Your task to perform on an android device: Open internet settings Image 0: 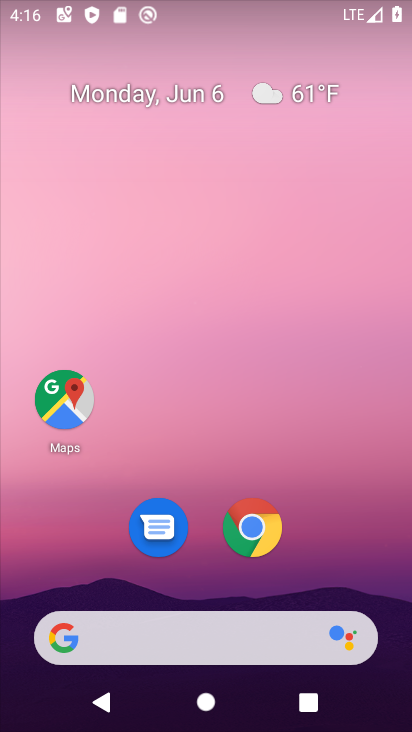
Step 0: click (351, 582)
Your task to perform on an android device: Open internet settings Image 1: 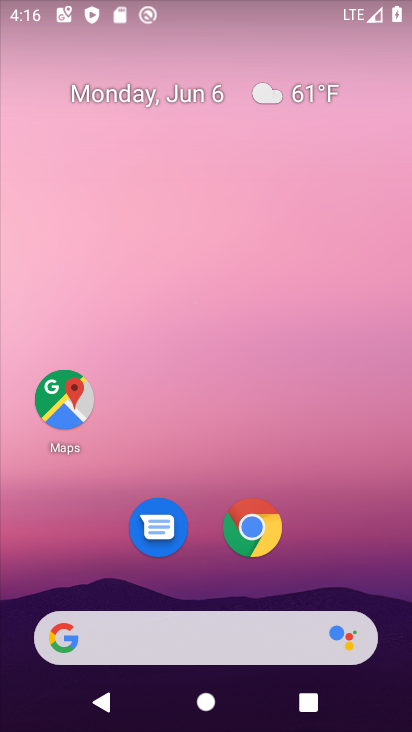
Step 1: drag from (335, 505) to (253, 18)
Your task to perform on an android device: Open internet settings Image 2: 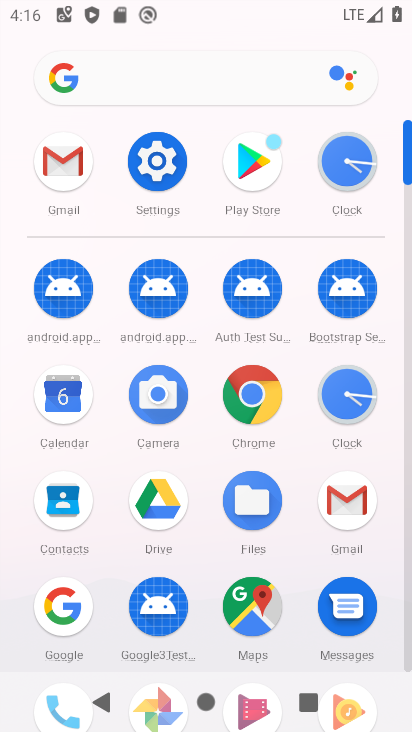
Step 2: click (159, 173)
Your task to perform on an android device: Open internet settings Image 3: 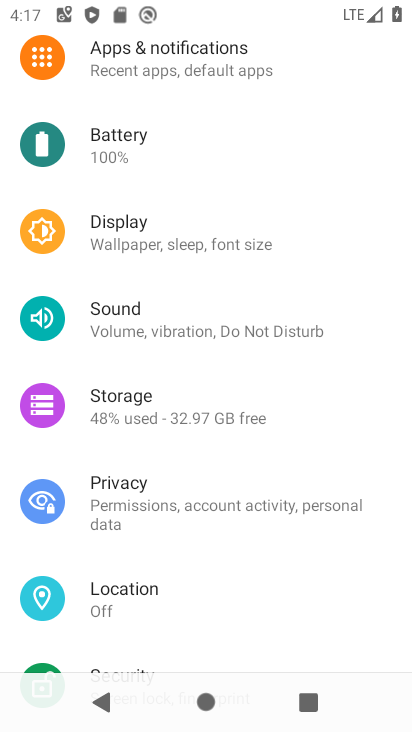
Step 3: click (273, 478)
Your task to perform on an android device: Open internet settings Image 4: 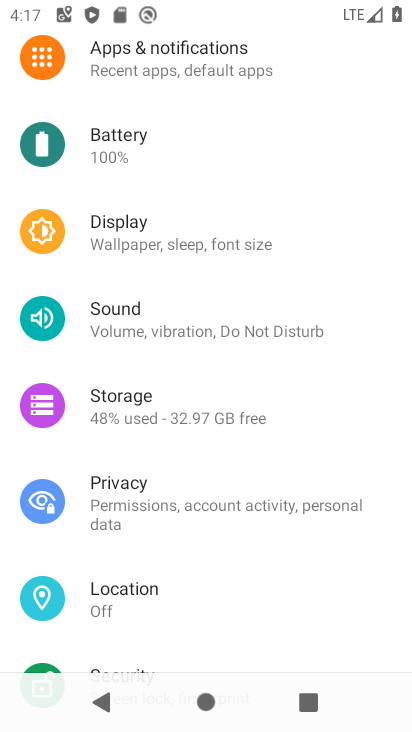
Step 4: drag from (358, 108) to (361, 446)
Your task to perform on an android device: Open internet settings Image 5: 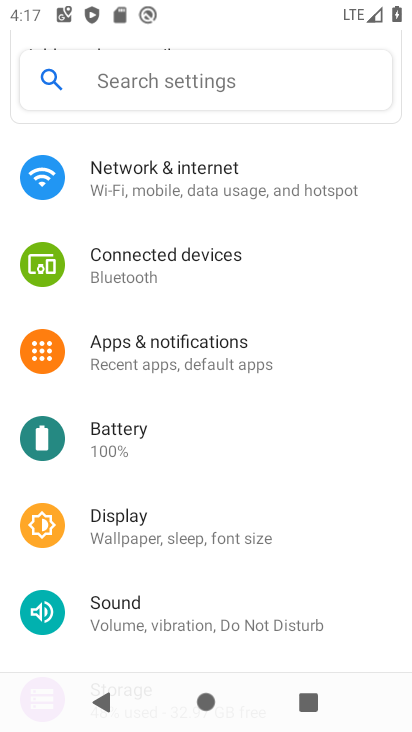
Step 5: click (331, 186)
Your task to perform on an android device: Open internet settings Image 6: 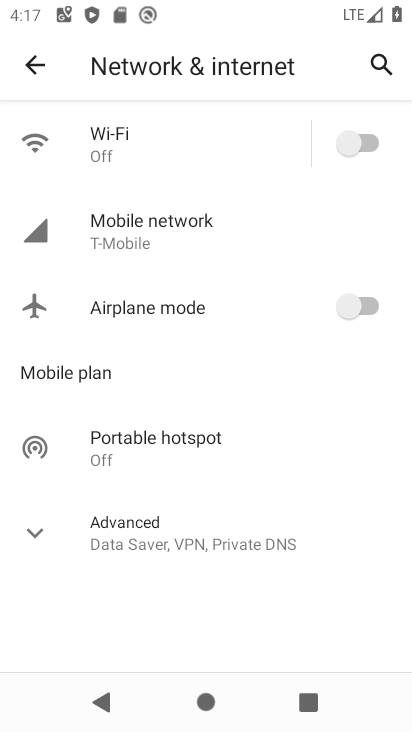
Step 6: task complete